Your task to perform on an android device: What's the weather going to be tomorrow? Image 0: 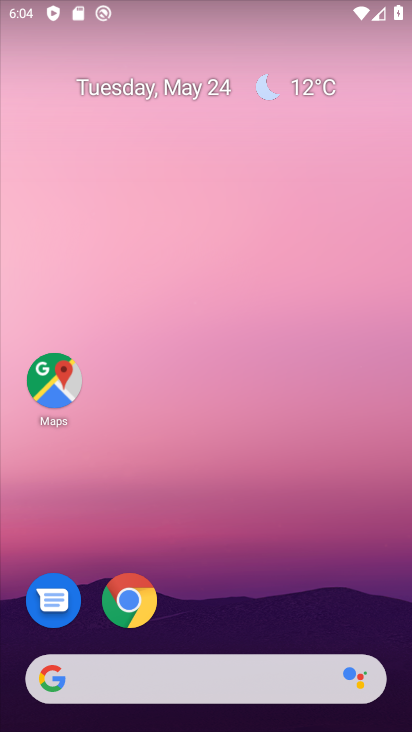
Step 0: drag from (175, 642) to (298, 714)
Your task to perform on an android device: What's the weather going to be tomorrow? Image 1: 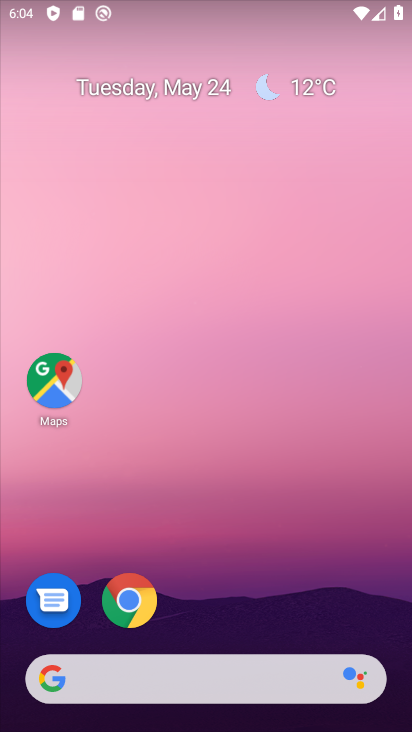
Step 1: drag from (67, 266) to (410, 297)
Your task to perform on an android device: What's the weather going to be tomorrow? Image 2: 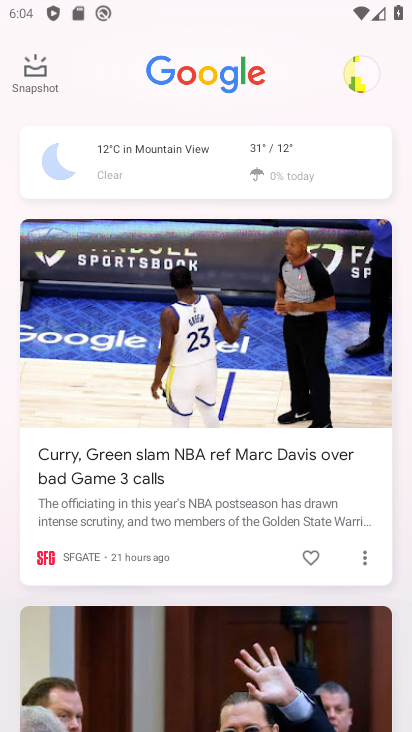
Step 2: click (204, 157)
Your task to perform on an android device: What's the weather going to be tomorrow? Image 3: 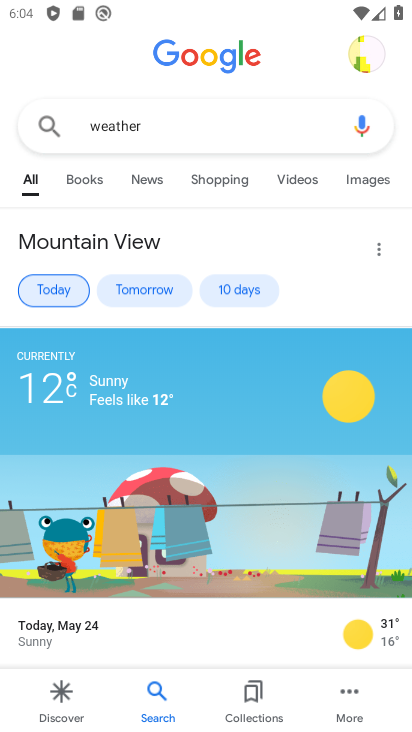
Step 3: task complete